Your task to perform on an android device: Turn on the flashlight Image 0: 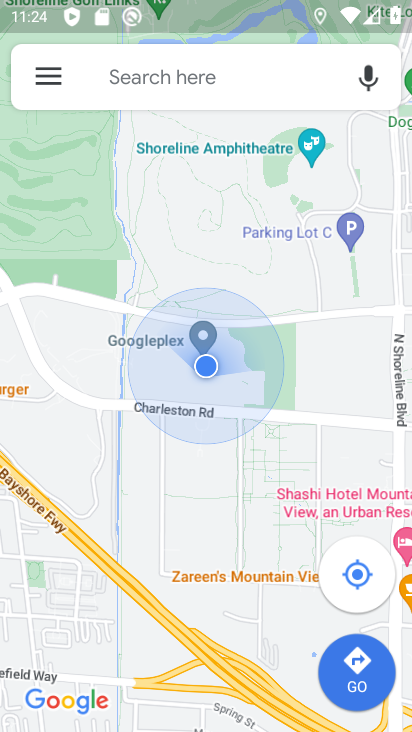
Step 0: press home button
Your task to perform on an android device: Turn on the flashlight Image 1: 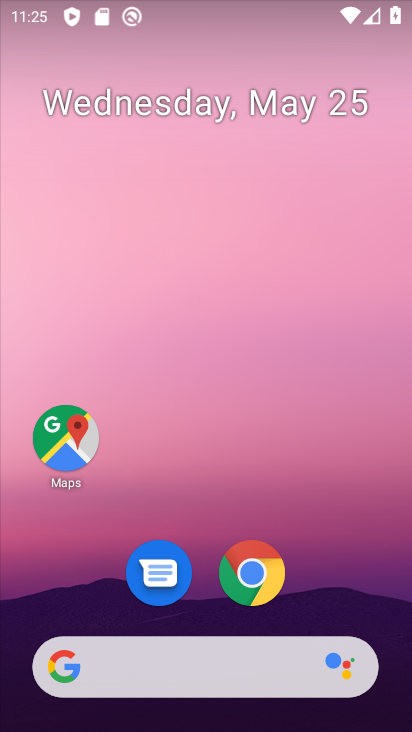
Step 1: task complete